Your task to perform on an android device: Go to Google maps Image 0: 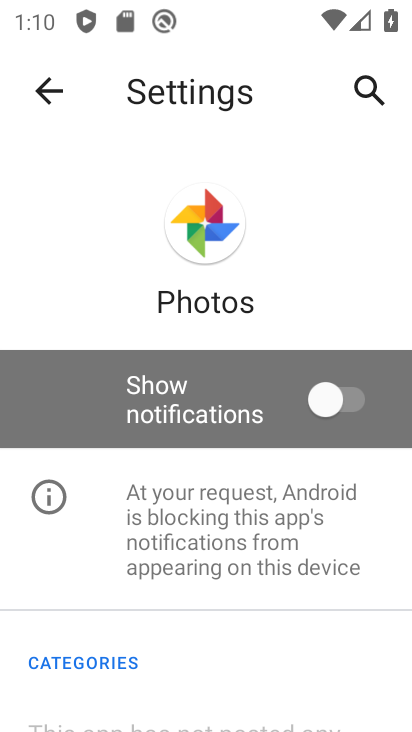
Step 0: press home button
Your task to perform on an android device: Go to Google maps Image 1: 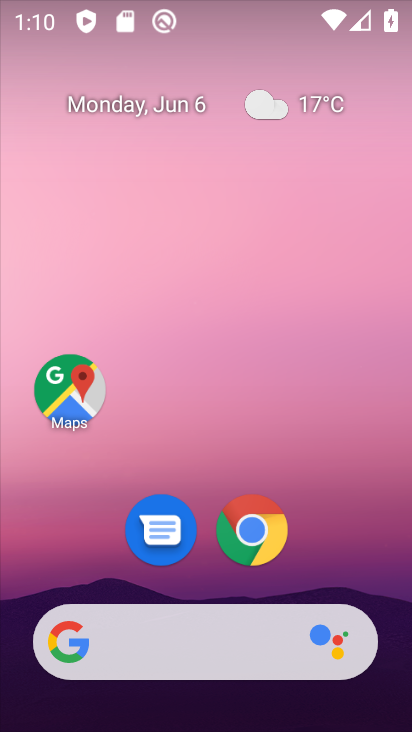
Step 1: drag from (227, 589) to (208, 262)
Your task to perform on an android device: Go to Google maps Image 2: 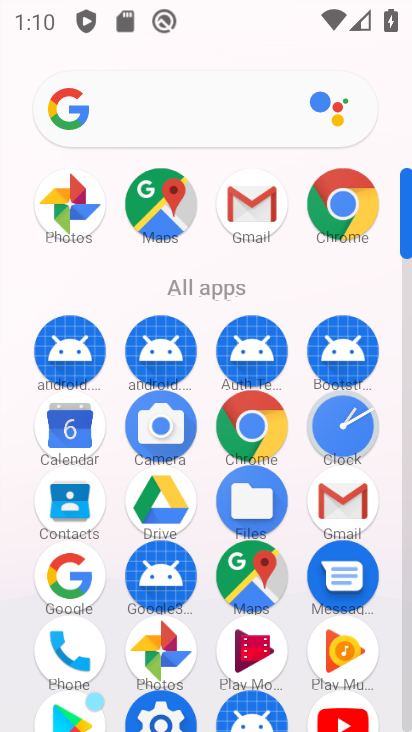
Step 2: click (258, 560)
Your task to perform on an android device: Go to Google maps Image 3: 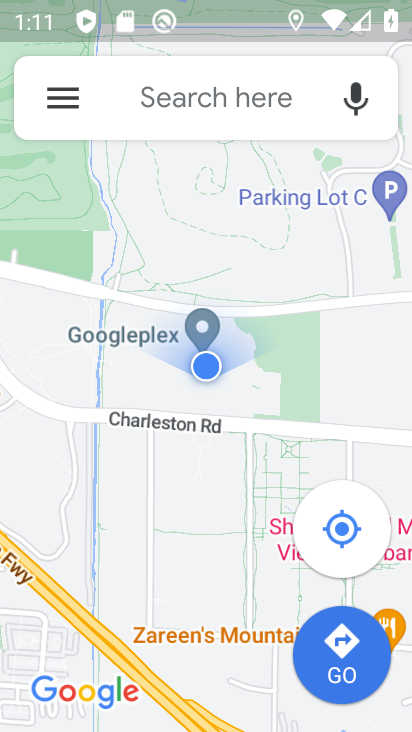
Step 3: task complete